Your task to perform on an android device: Open Maps and search for coffee Image 0: 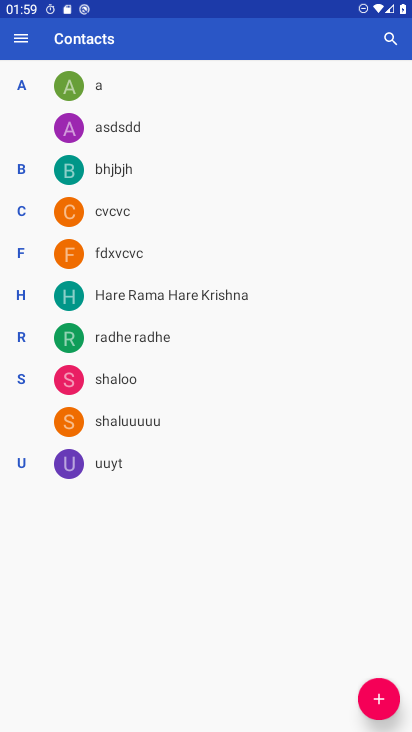
Step 0: press home button
Your task to perform on an android device: Open Maps and search for coffee Image 1: 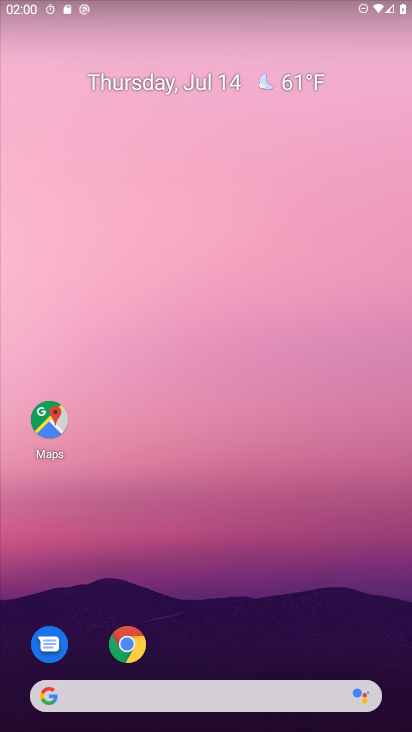
Step 1: drag from (278, 626) to (232, 129)
Your task to perform on an android device: Open Maps and search for coffee Image 2: 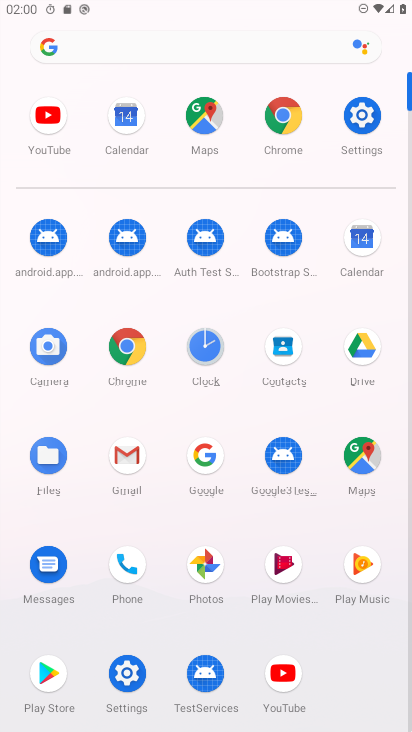
Step 2: click (205, 118)
Your task to perform on an android device: Open Maps and search for coffee Image 3: 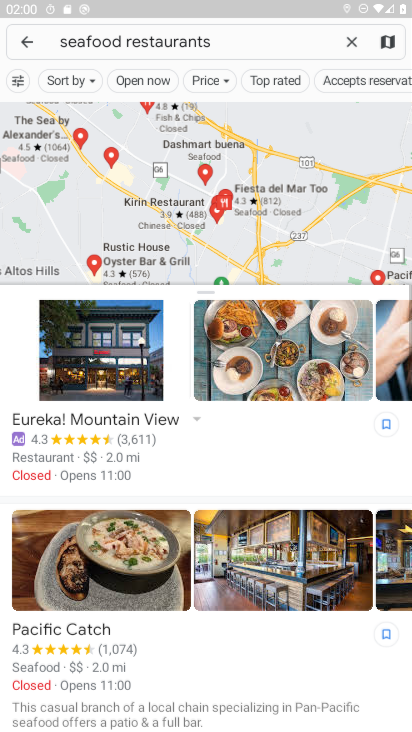
Step 3: click (244, 45)
Your task to perform on an android device: Open Maps and search for coffee Image 4: 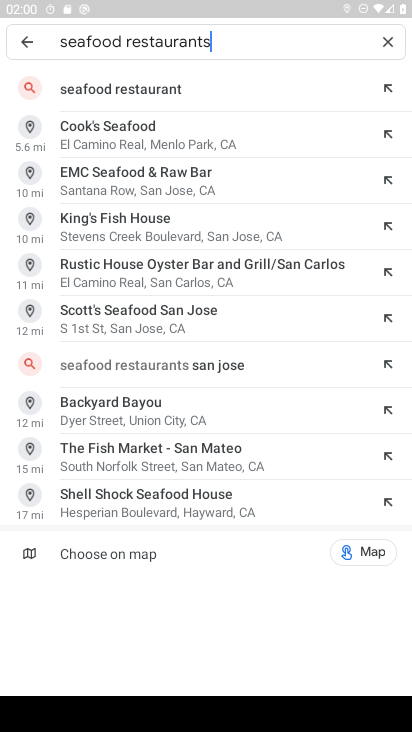
Step 4: click (394, 45)
Your task to perform on an android device: Open Maps and search for coffee Image 5: 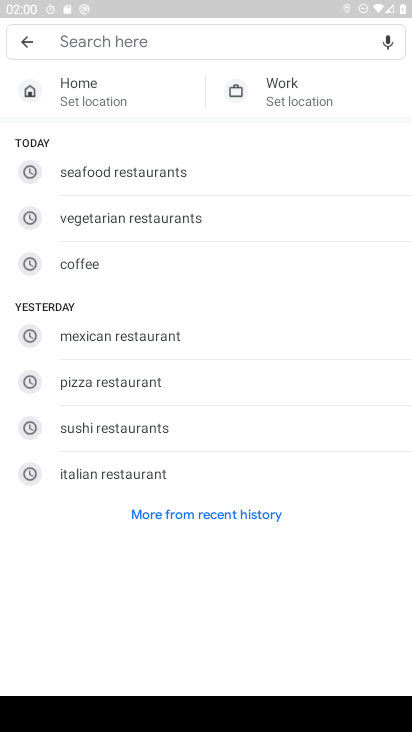
Step 5: click (67, 263)
Your task to perform on an android device: Open Maps and search for coffee Image 6: 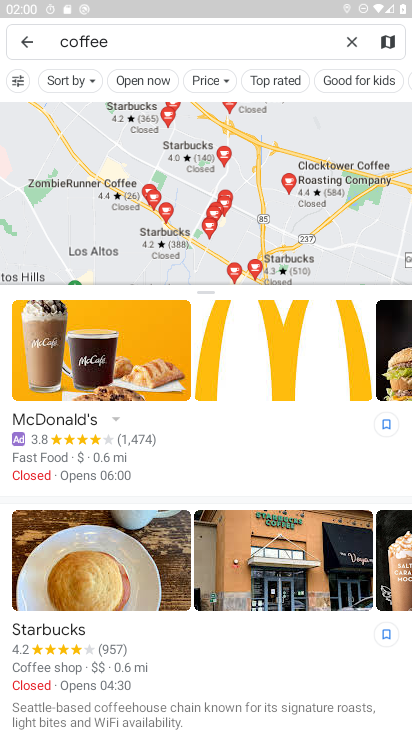
Step 6: task complete